Your task to perform on an android device: turn off improve location accuracy Image 0: 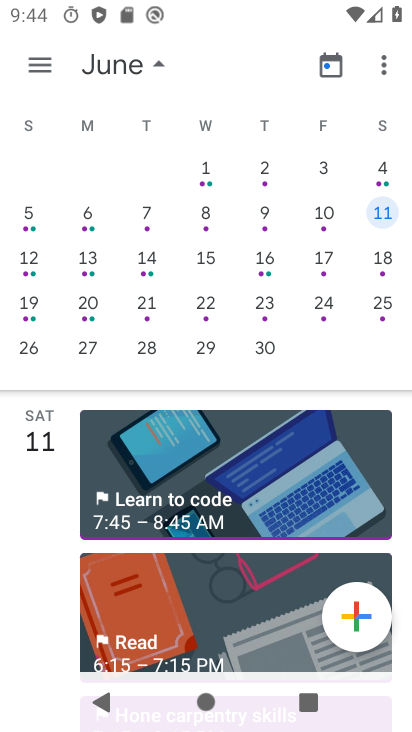
Step 0: press home button
Your task to perform on an android device: turn off improve location accuracy Image 1: 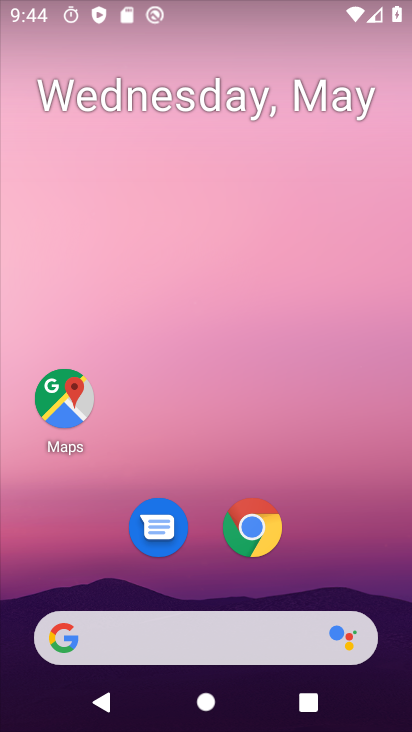
Step 1: drag from (328, 563) to (286, 106)
Your task to perform on an android device: turn off improve location accuracy Image 2: 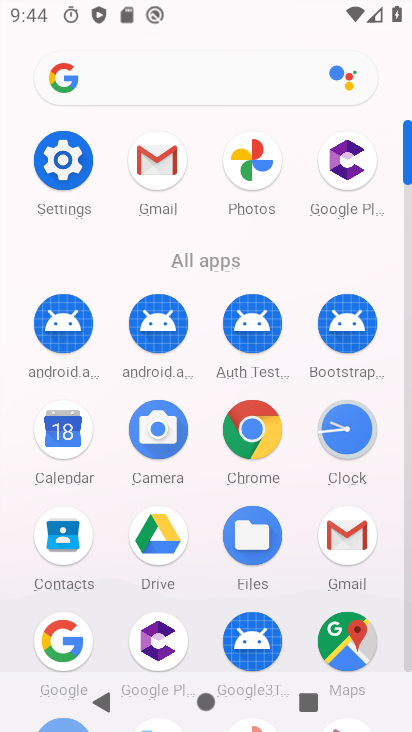
Step 2: drag from (213, 198) to (224, 18)
Your task to perform on an android device: turn off improve location accuracy Image 3: 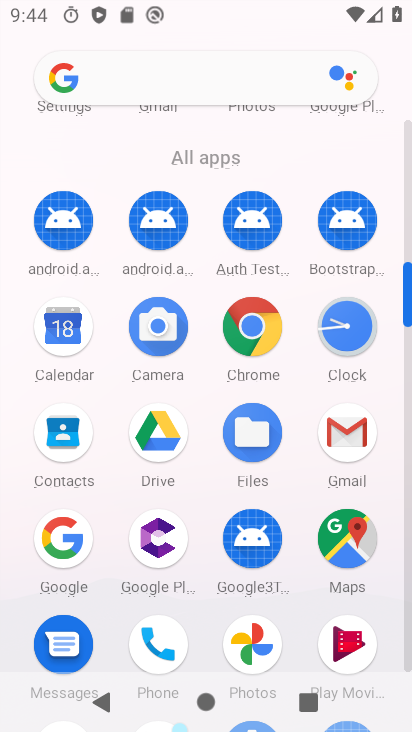
Step 3: drag from (188, 185) to (217, 11)
Your task to perform on an android device: turn off improve location accuracy Image 4: 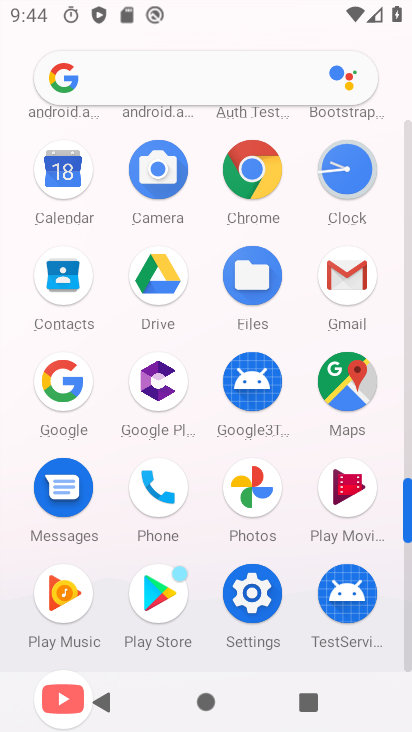
Step 4: click (254, 578)
Your task to perform on an android device: turn off improve location accuracy Image 5: 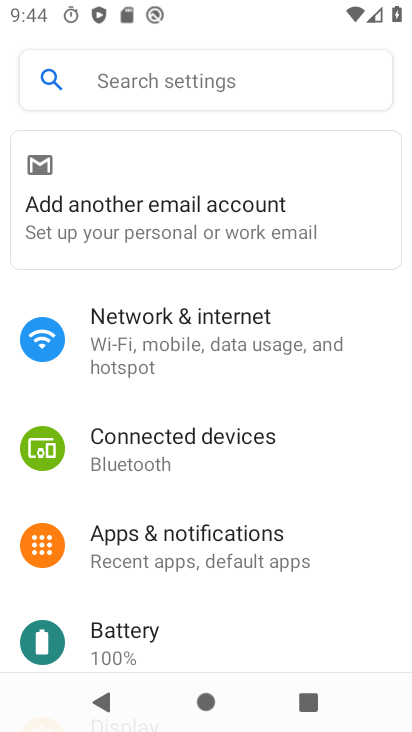
Step 5: drag from (236, 646) to (183, 138)
Your task to perform on an android device: turn off improve location accuracy Image 6: 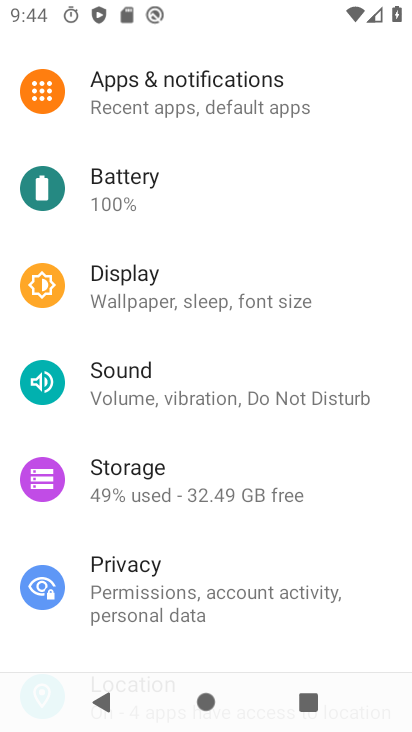
Step 6: drag from (148, 630) to (148, 152)
Your task to perform on an android device: turn off improve location accuracy Image 7: 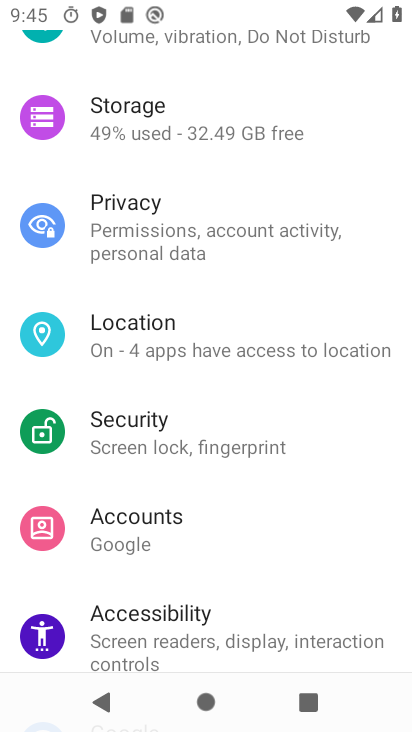
Step 7: click (138, 332)
Your task to perform on an android device: turn off improve location accuracy Image 8: 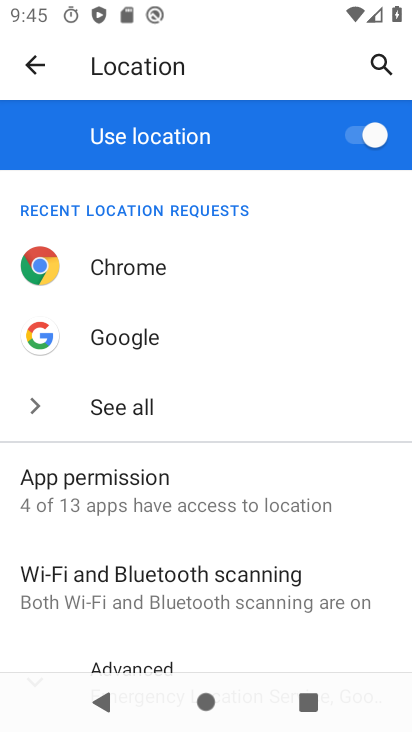
Step 8: click (357, 124)
Your task to perform on an android device: turn off improve location accuracy Image 9: 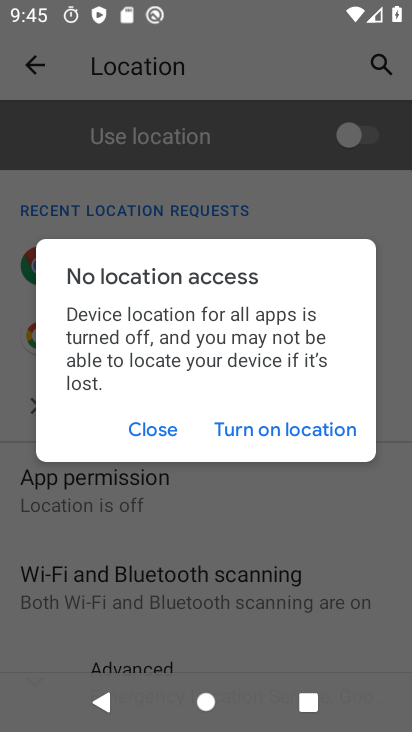
Step 9: click (171, 424)
Your task to perform on an android device: turn off improve location accuracy Image 10: 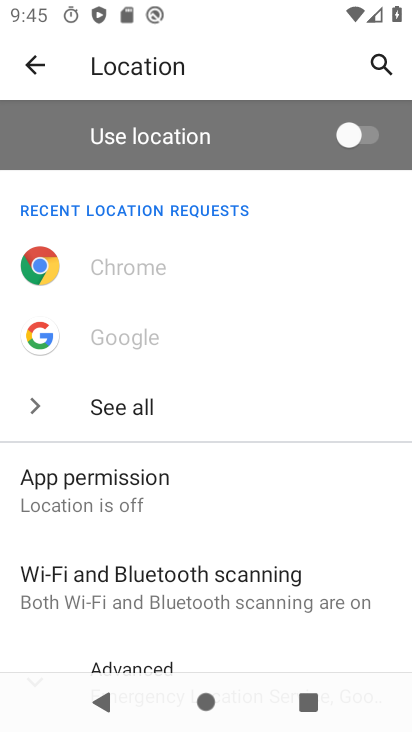
Step 10: task complete